Your task to perform on an android device: delete browsing data in the chrome app Image 0: 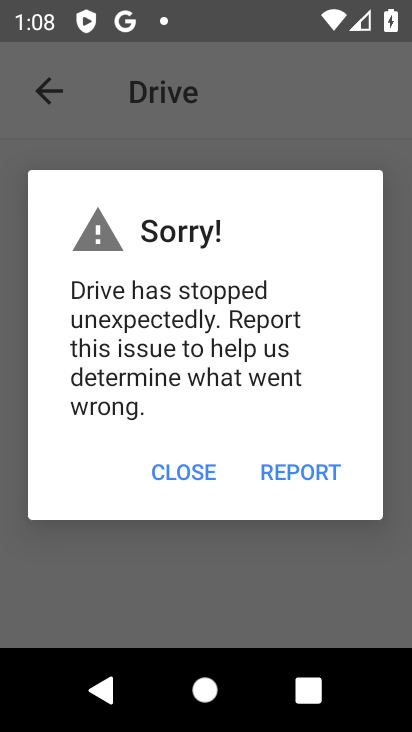
Step 0: press home button
Your task to perform on an android device: delete browsing data in the chrome app Image 1: 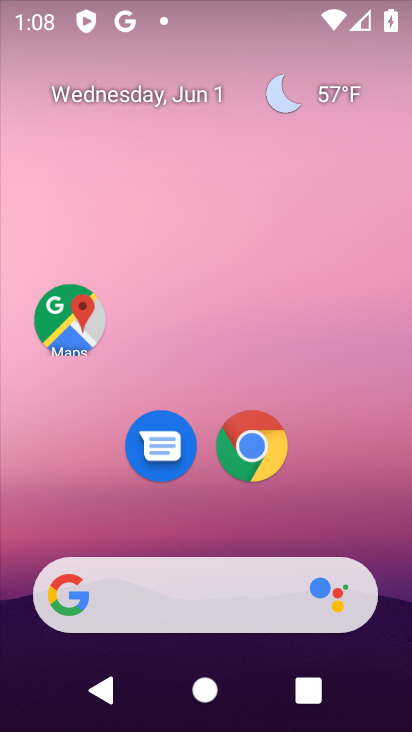
Step 1: click (277, 441)
Your task to perform on an android device: delete browsing data in the chrome app Image 2: 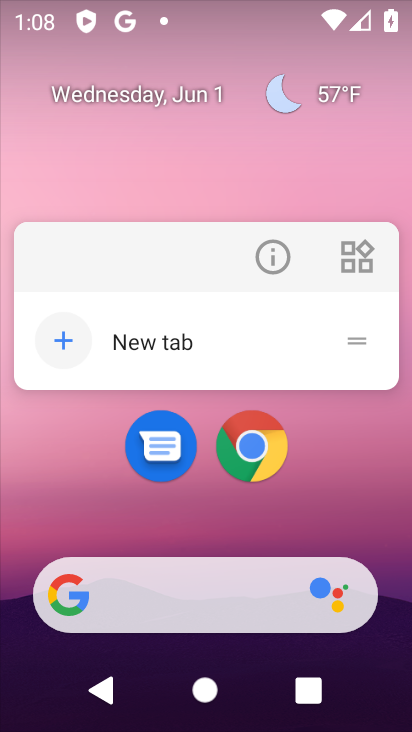
Step 2: click (260, 453)
Your task to perform on an android device: delete browsing data in the chrome app Image 3: 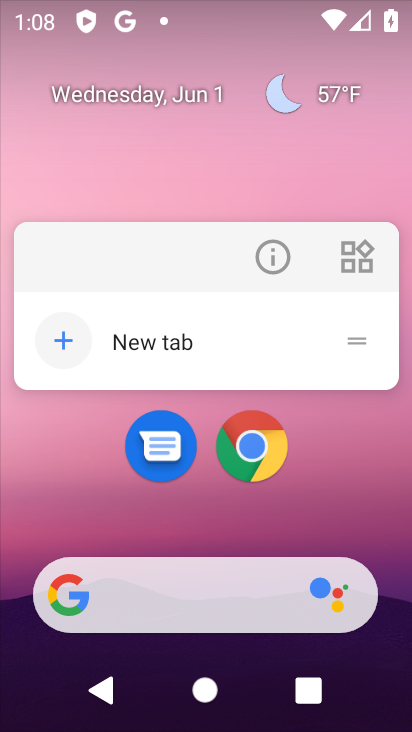
Step 3: click (258, 426)
Your task to perform on an android device: delete browsing data in the chrome app Image 4: 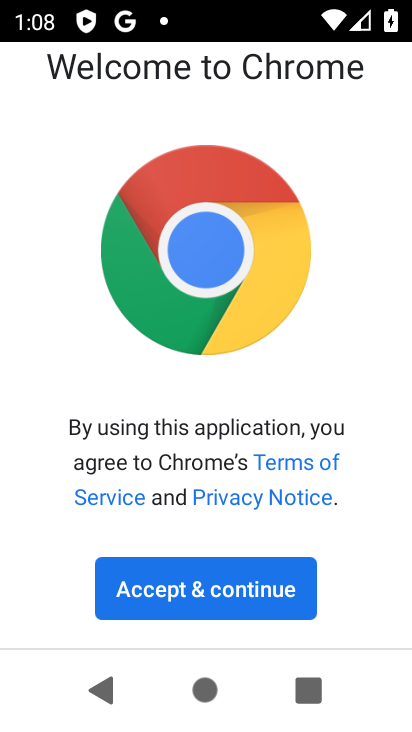
Step 4: click (210, 596)
Your task to perform on an android device: delete browsing data in the chrome app Image 5: 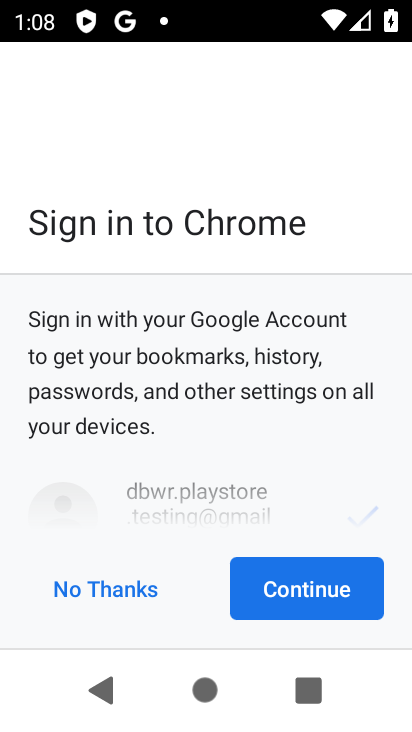
Step 5: click (275, 583)
Your task to perform on an android device: delete browsing data in the chrome app Image 6: 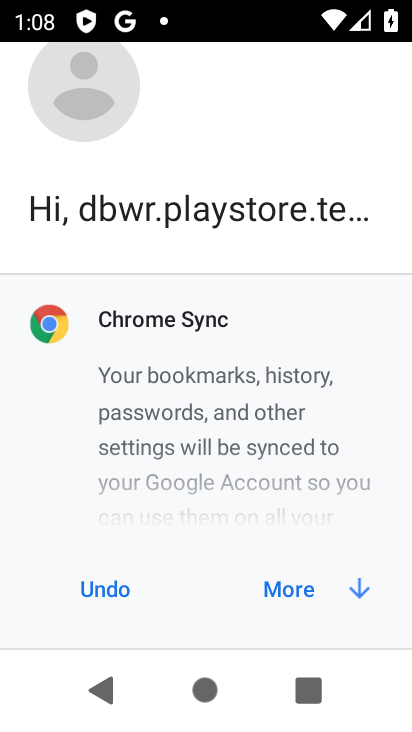
Step 6: click (352, 577)
Your task to perform on an android device: delete browsing data in the chrome app Image 7: 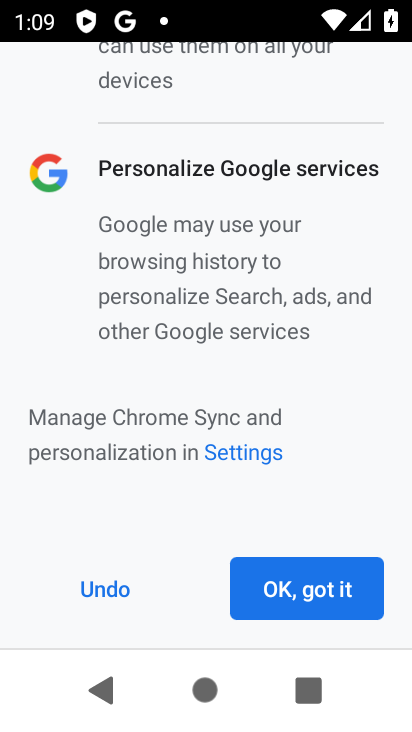
Step 7: click (348, 575)
Your task to perform on an android device: delete browsing data in the chrome app Image 8: 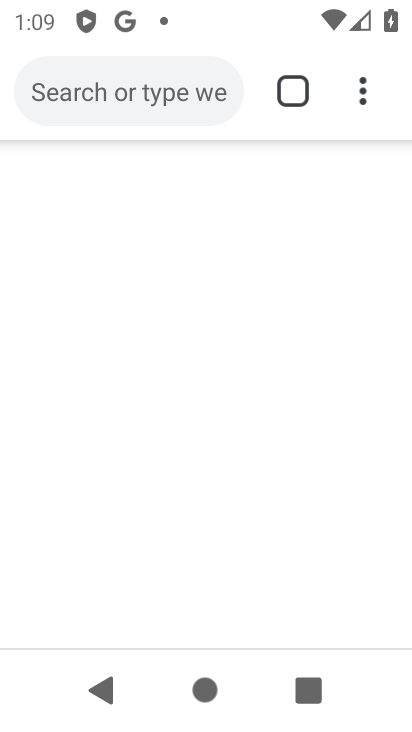
Step 8: click (365, 76)
Your task to perform on an android device: delete browsing data in the chrome app Image 9: 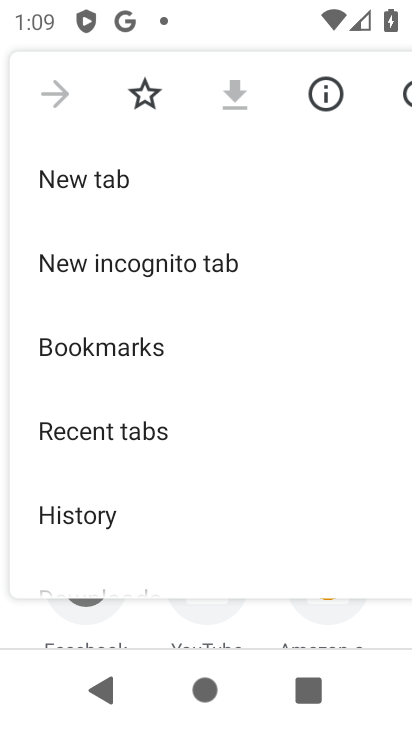
Step 9: drag from (230, 460) to (240, 31)
Your task to perform on an android device: delete browsing data in the chrome app Image 10: 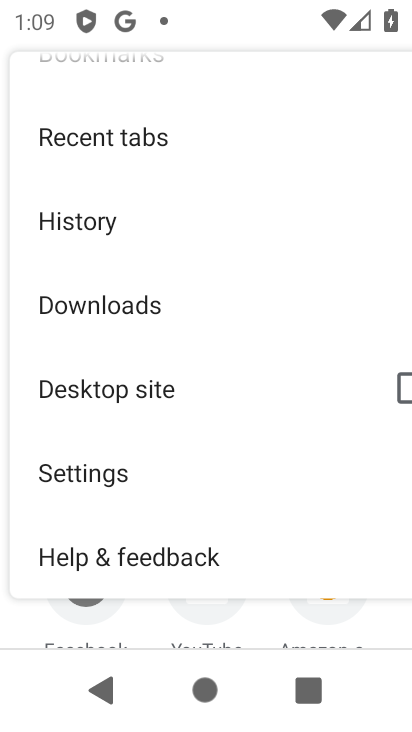
Step 10: click (207, 476)
Your task to perform on an android device: delete browsing data in the chrome app Image 11: 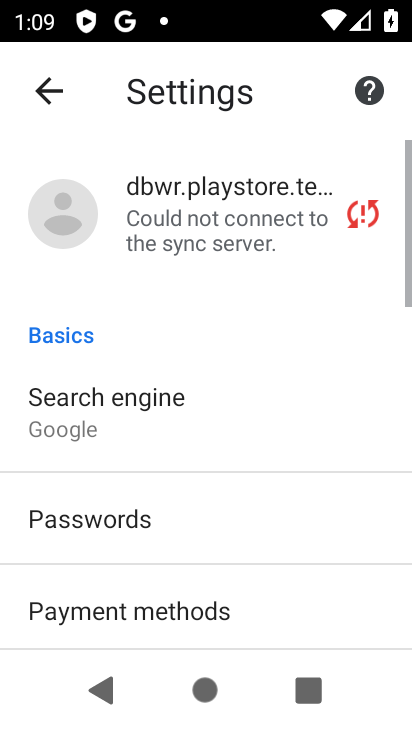
Step 11: drag from (221, 518) to (209, 167)
Your task to perform on an android device: delete browsing data in the chrome app Image 12: 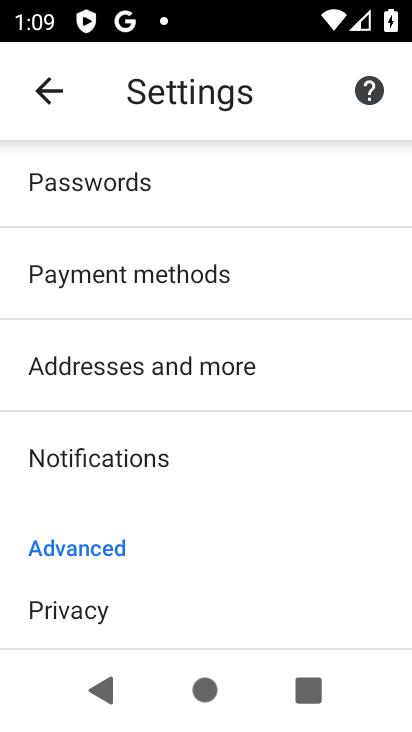
Step 12: click (121, 611)
Your task to perform on an android device: delete browsing data in the chrome app Image 13: 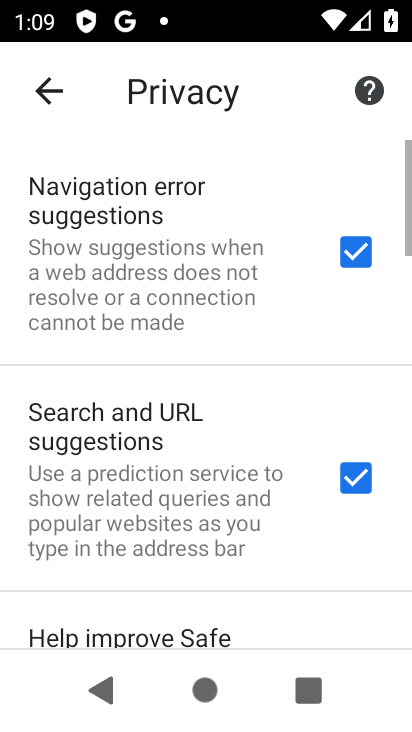
Step 13: drag from (122, 610) to (167, 135)
Your task to perform on an android device: delete browsing data in the chrome app Image 14: 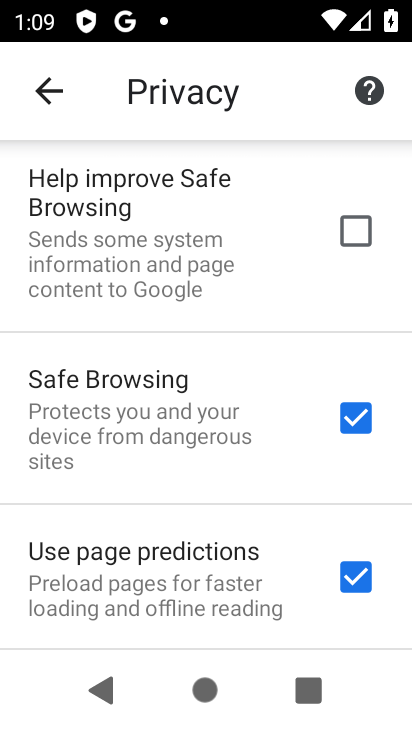
Step 14: drag from (225, 575) to (249, 127)
Your task to perform on an android device: delete browsing data in the chrome app Image 15: 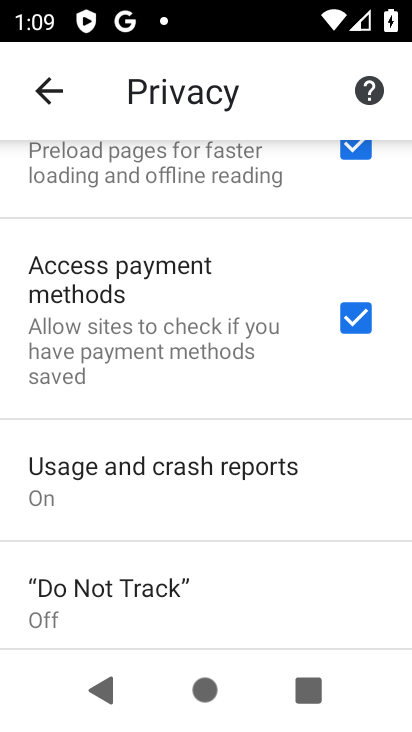
Step 15: drag from (272, 600) to (261, 148)
Your task to perform on an android device: delete browsing data in the chrome app Image 16: 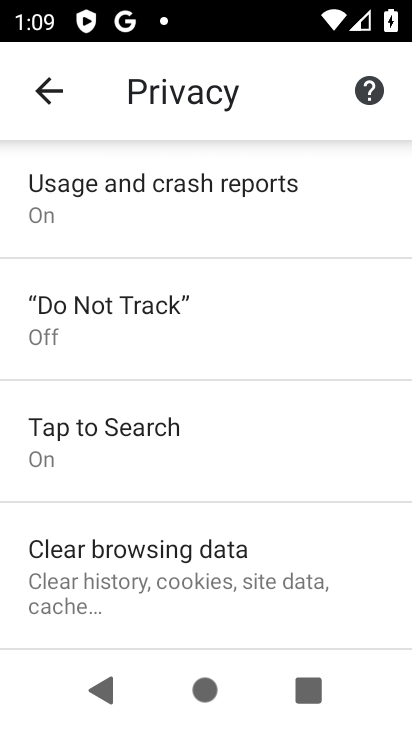
Step 16: click (235, 574)
Your task to perform on an android device: delete browsing data in the chrome app Image 17: 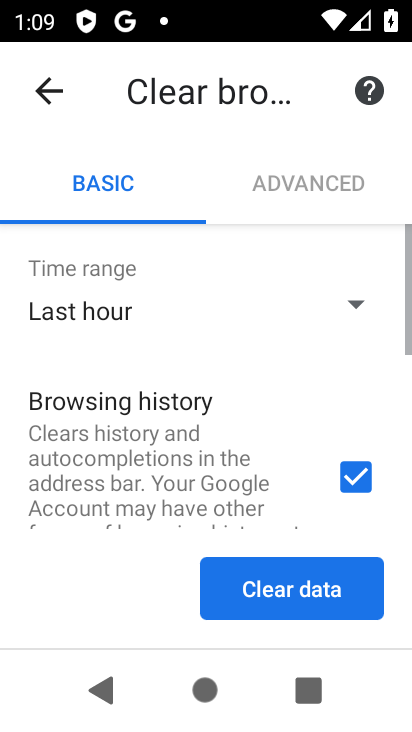
Step 17: drag from (237, 580) to (226, 161)
Your task to perform on an android device: delete browsing data in the chrome app Image 18: 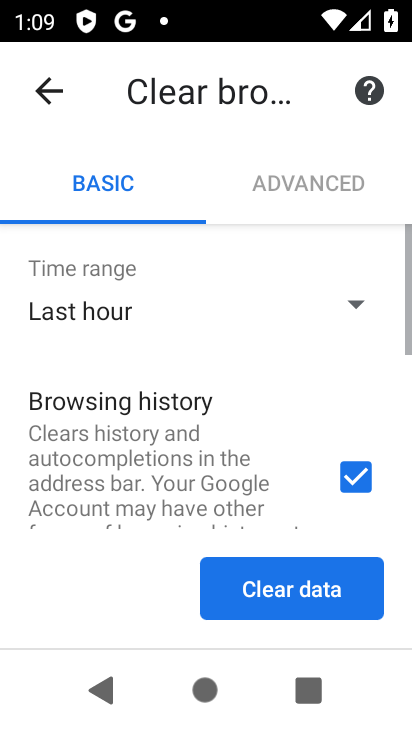
Step 18: drag from (180, 472) to (189, 170)
Your task to perform on an android device: delete browsing data in the chrome app Image 19: 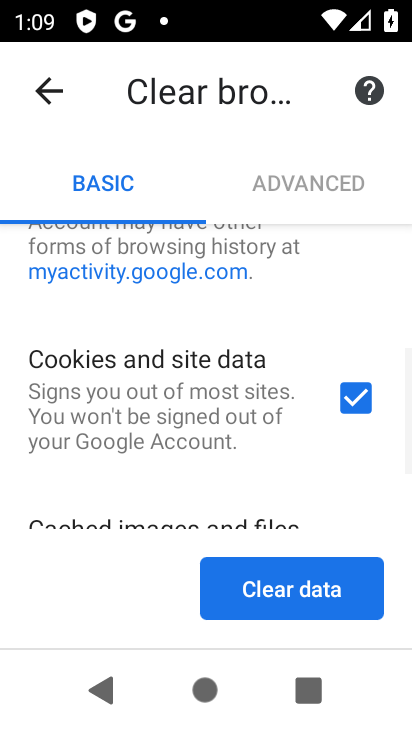
Step 19: drag from (189, 468) to (222, 130)
Your task to perform on an android device: delete browsing data in the chrome app Image 20: 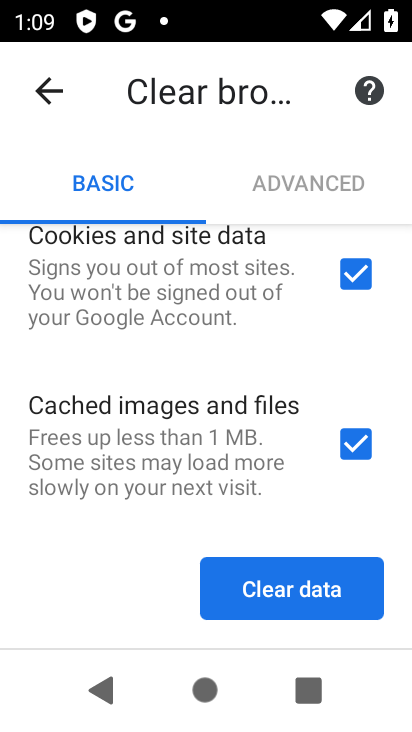
Step 20: click (282, 578)
Your task to perform on an android device: delete browsing data in the chrome app Image 21: 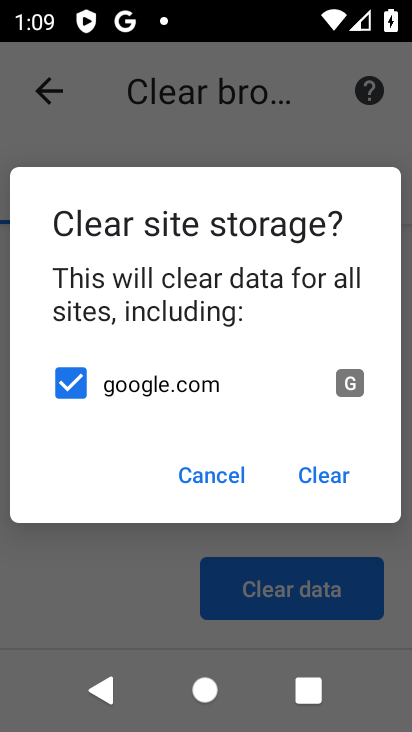
Step 21: click (351, 498)
Your task to perform on an android device: delete browsing data in the chrome app Image 22: 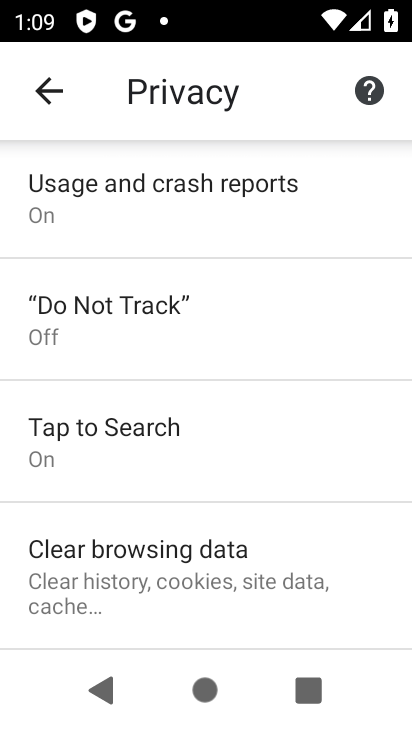
Step 22: task complete